Your task to perform on an android device: stop showing notifications on the lock screen Image 0: 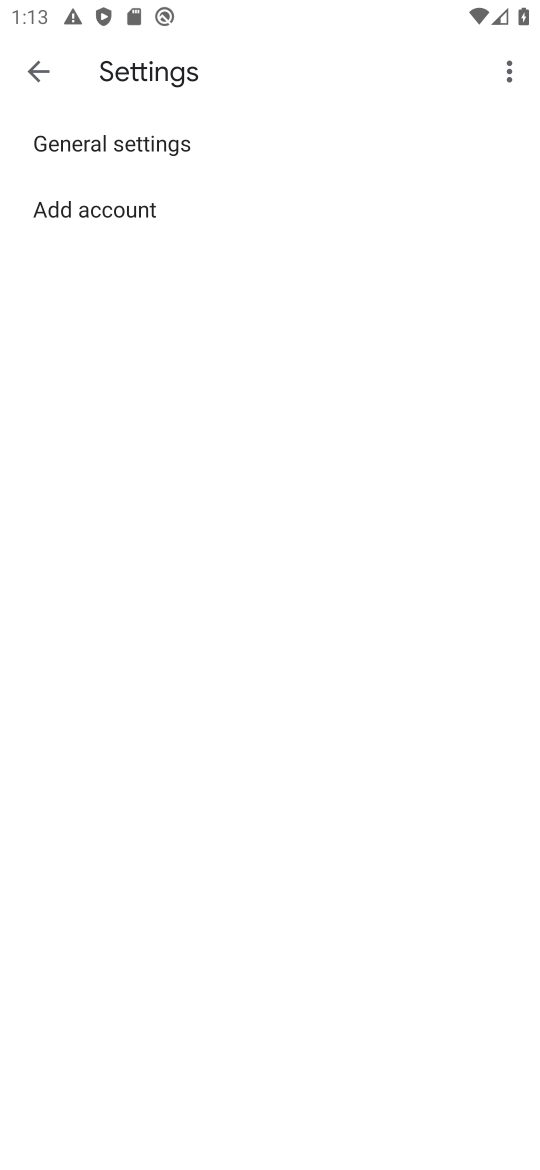
Step 0: press home button
Your task to perform on an android device: stop showing notifications on the lock screen Image 1: 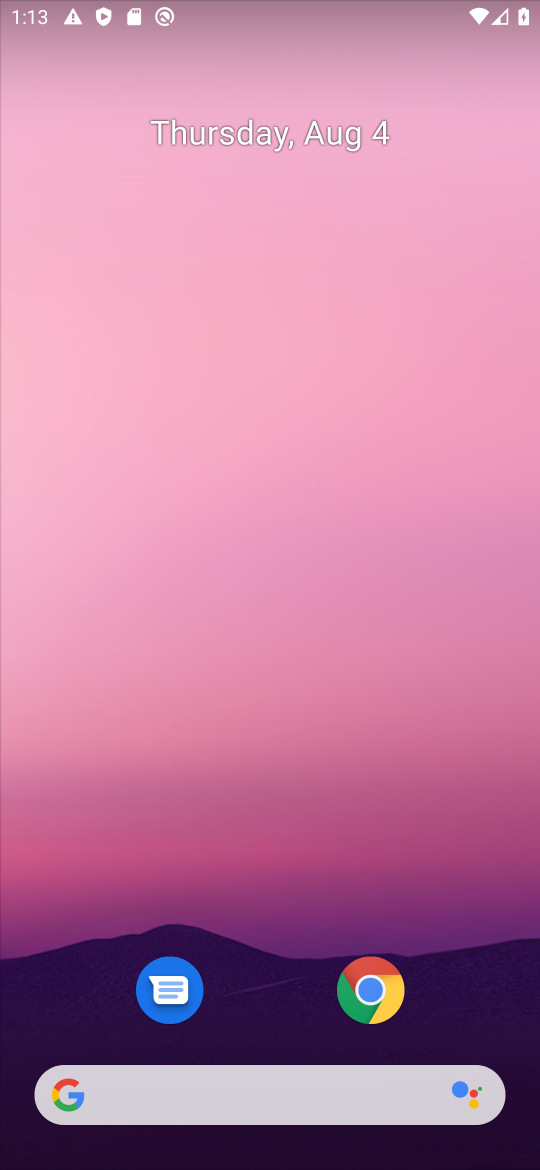
Step 1: drag from (287, 1001) to (155, 269)
Your task to perform on an android device: stop showing notifications on the lock screen Image 2: 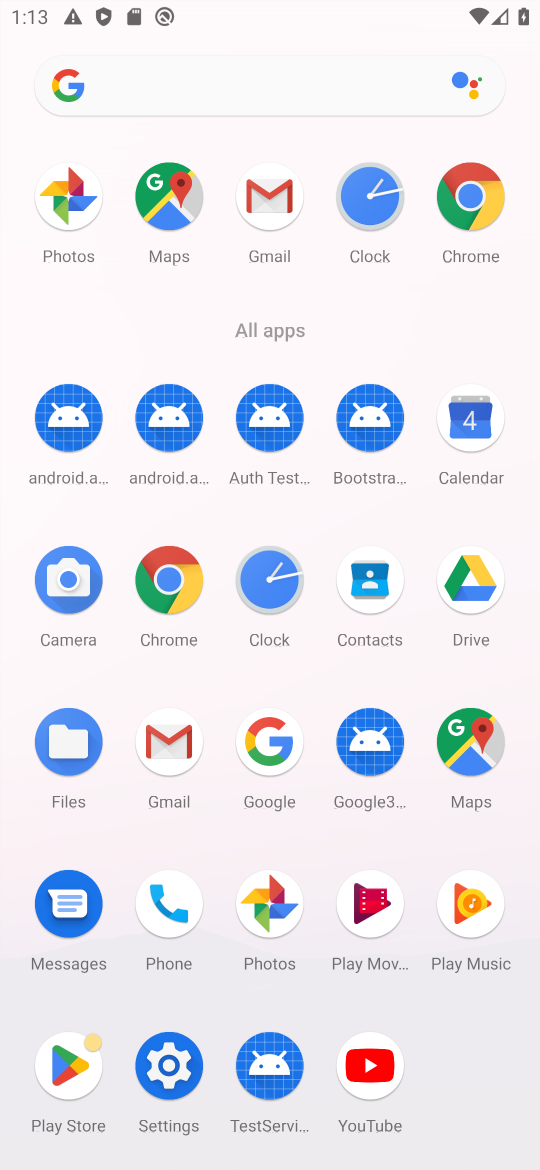
Step 2: click (193, 1078)
Your task to perform on an android device: stop showing notifications on the lock screen Image 3: 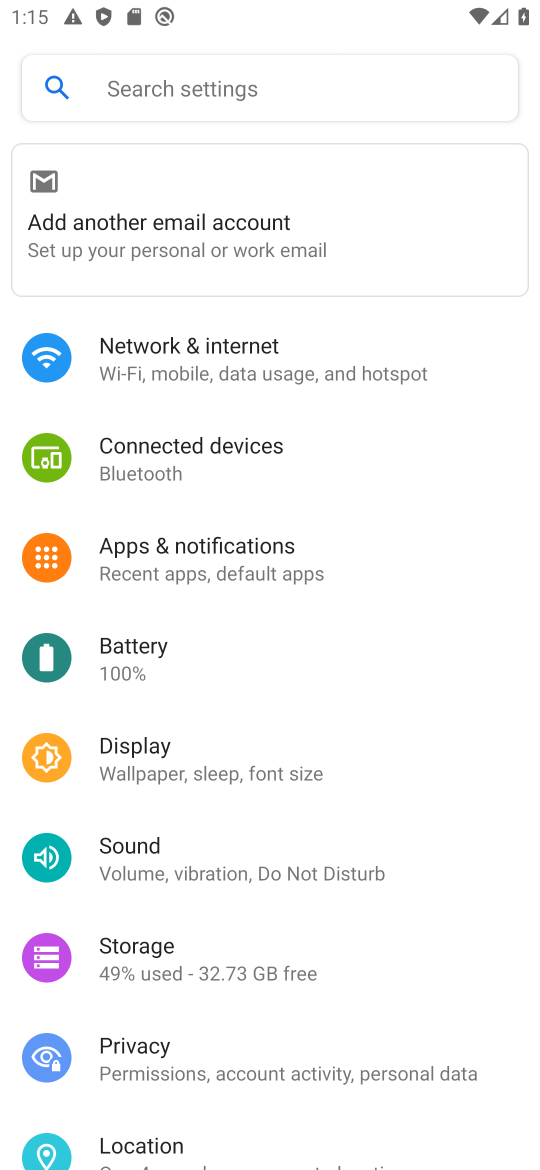
Step 3: click (331, 576)
Your task to perform on an android device: stop showing notifications on the lock screen Image 4: 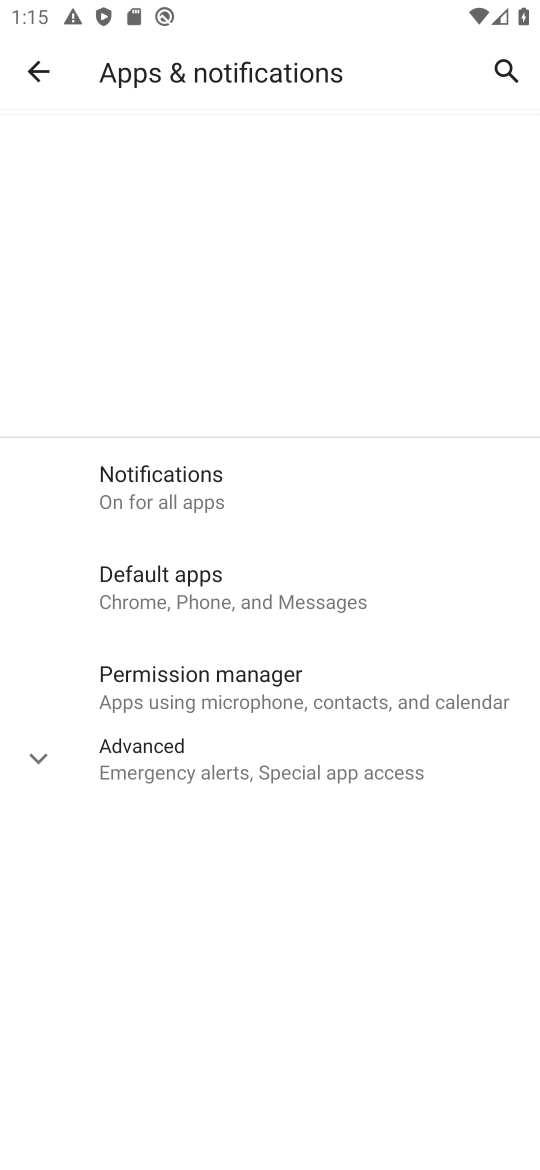
Step 4: task complete